Your task to perform on an android device: change notification settings in the gmail app Image 0: 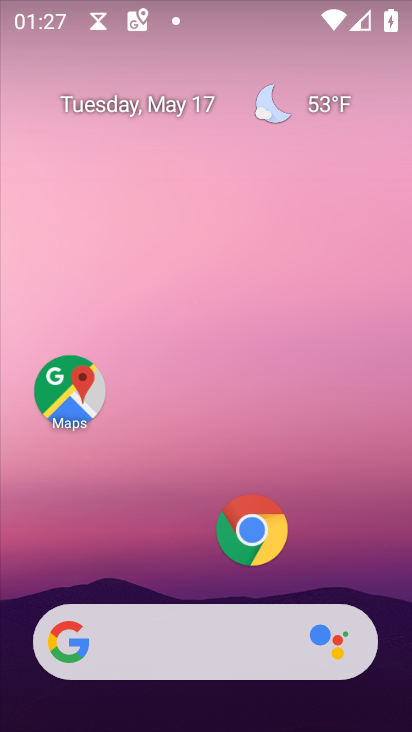
Step 0: drag from (335, 559) to (255, 267)
Your task to perform on an android device: change notification settings in the gmail app Image 1: 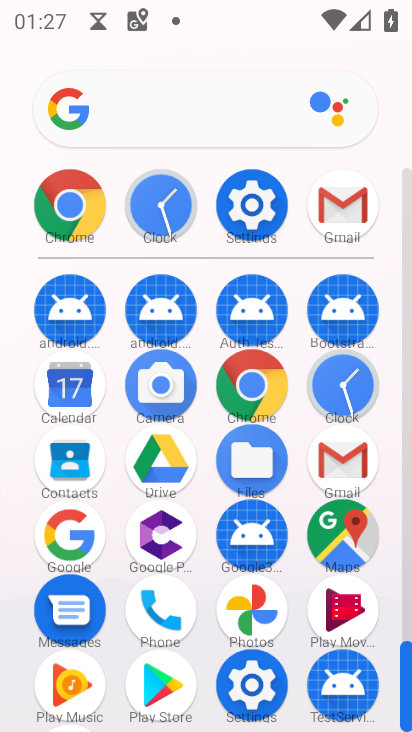
Step 1: click (353, 215)
Your task to perform on an android device: change notification settings in the gmail app Image 2: 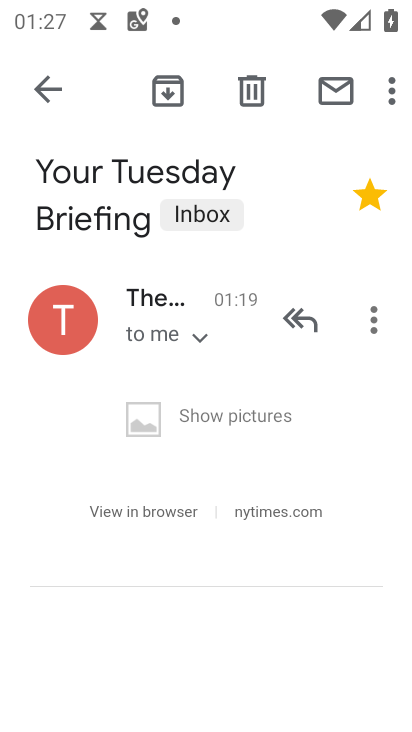
Step 2: click (27, 84)
Your task to perform on an android device: change notification settings in the gmail app Image 3: 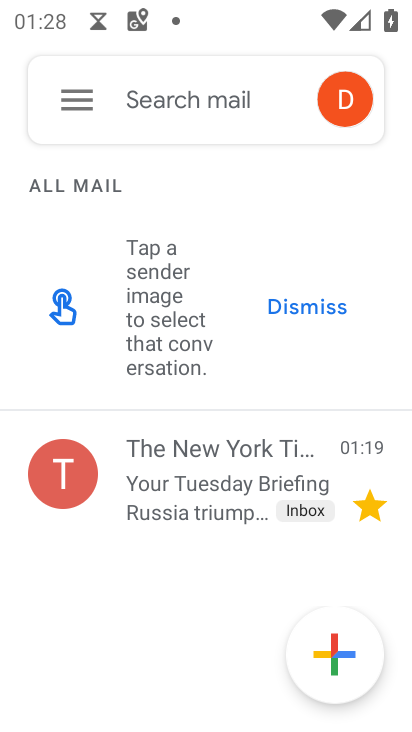
Step 3: click (69, 104)
Your task to perform on an android device: change notification settings in the gmail app Image 4: 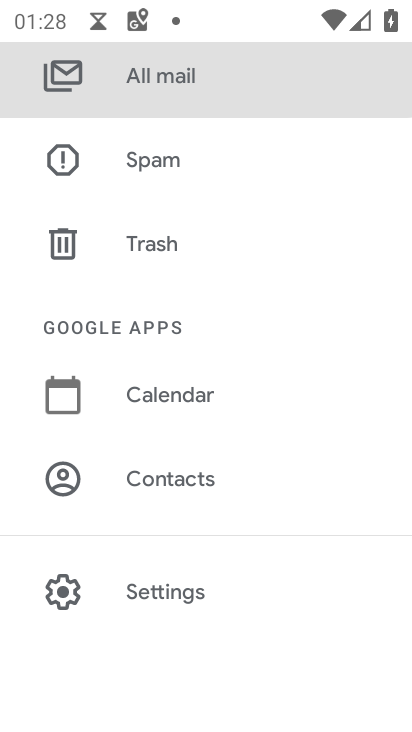
Step 4: click (234, 585)
Your task to perform on an android device: change notification settings in the gmail app Image 5: 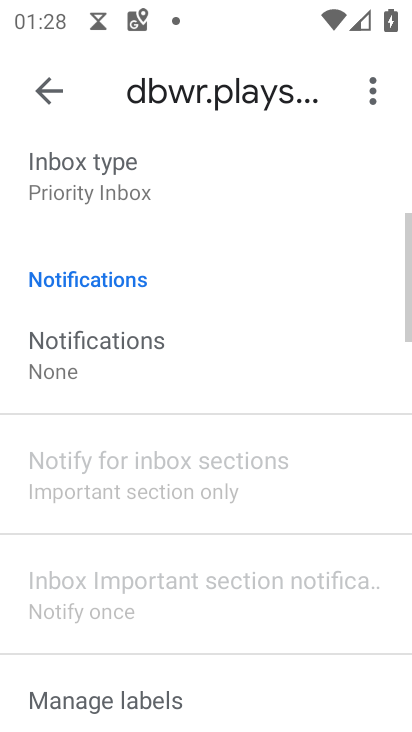
Step 5: drag from (234, 585) to (255, 370)
Your task to perform on an android device: change notification settings in the gmail app Image 6: 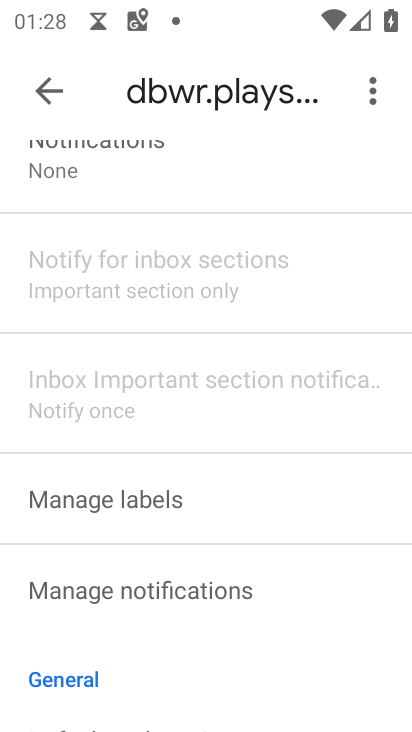
Step 6: drag from (219, 585) to (207, 362)
Your task to perform on an android device: change notification settings in the gmail app Image 7: 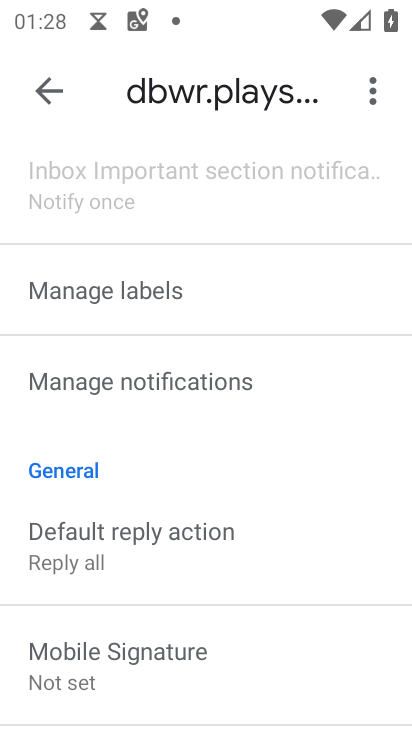
Step 7: click (174, 393)
Your task to perform on an android device: change notification settings in the gmail app Image 8: 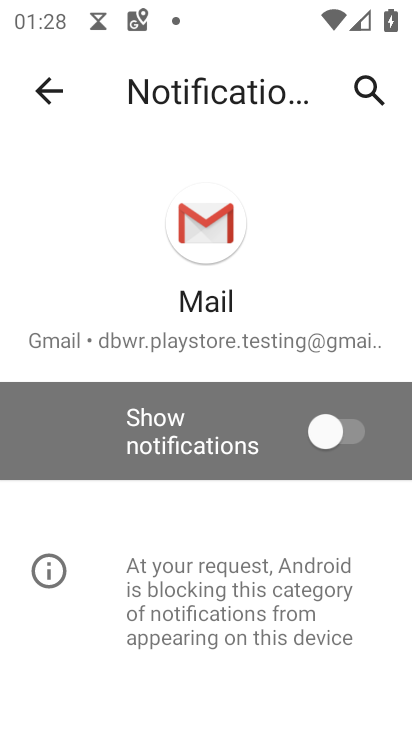
Step 8: click (351, 439)
Your task to perform on an android device: change notification settings in the gmail app Image 9: 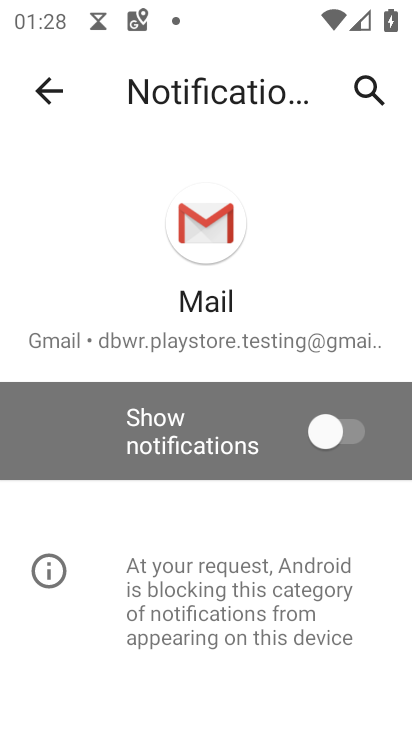
Step 9: click (362, 433)
Your task to perform on an android device: change notification settings in the gmail app Image 10: 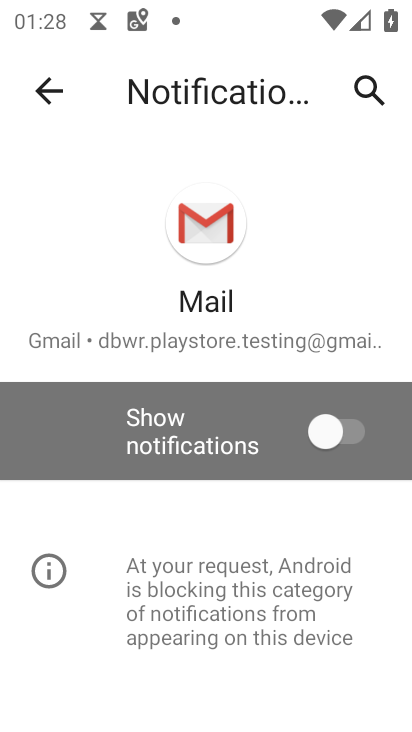
Step 10: click (346, 433)
Your task to perform on an android device: change notification settings in the gmail app Image 11: 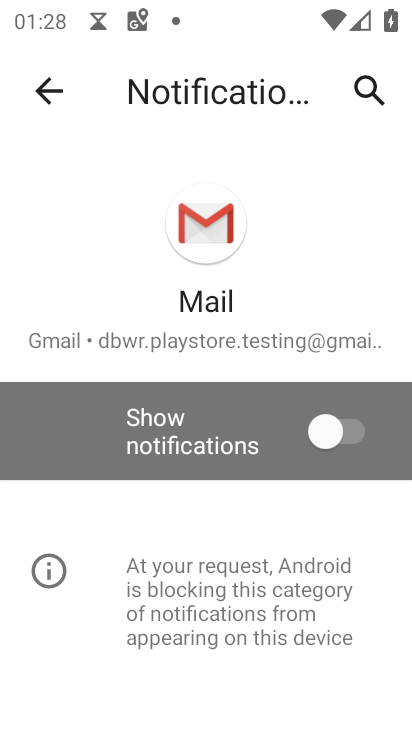
Step 11: drag from (298, 643) to (274, 456)
Your task to perform on an android device: change notification settings in the gmail app Image 12: 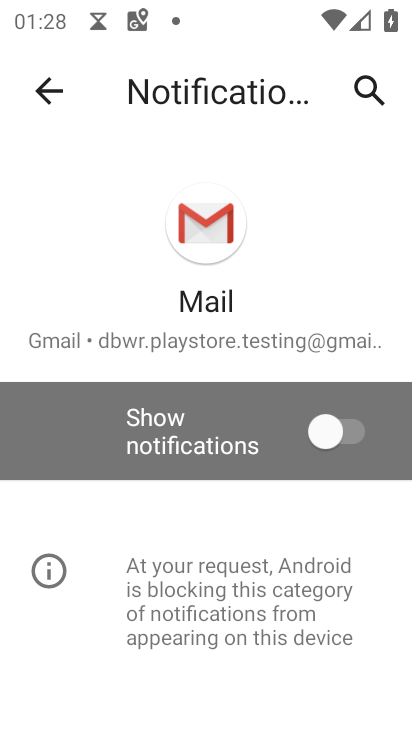
Step 12: click (348, 428)
Your task to perform on an android device: change notification settings in the gmail app Image 13: 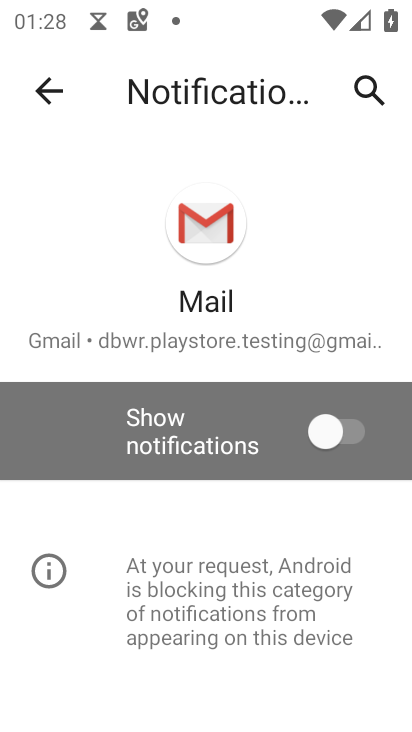
Step 13: click (348, 428)
Your task to perform on an android device: change notification settings in the gmail app Image 14: 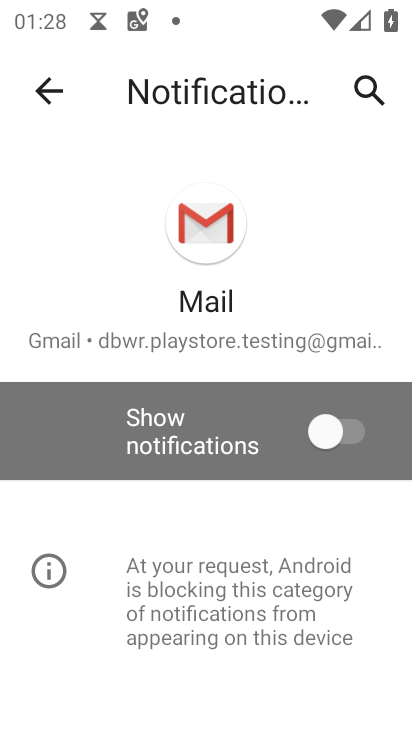
Step 14: click (348, 428)
Your task to perform on an android device: change notification settings in the gmail app Image 15: 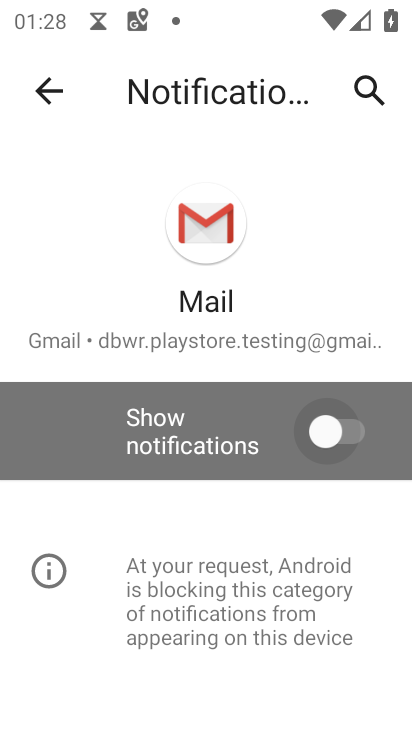
Step 15: click (348, 428)
Your task to perform on an android device: change notification settings in the gmail app Image 16: 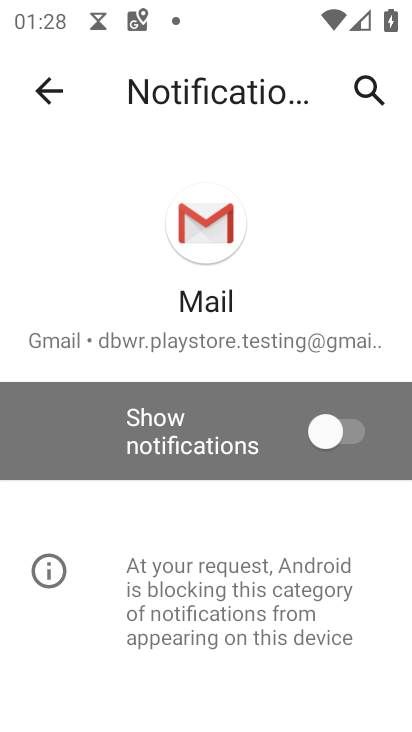
Step 16: task complete